Your task to perform on an android device: Open Google Chrome Image 0: 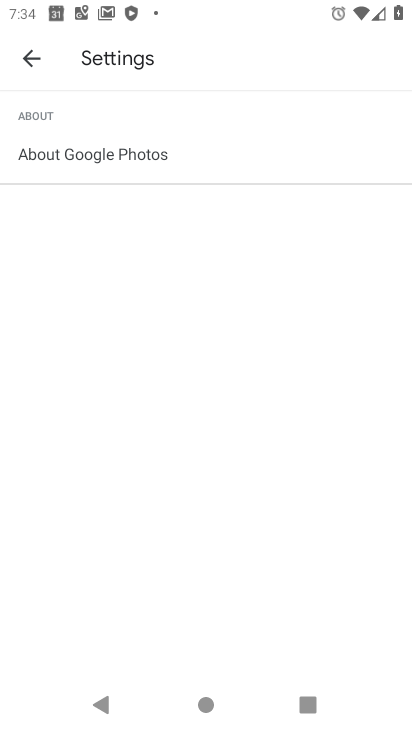
Step 0: press home button
Your task to perform on an android device: Open Google Chrome Image 1: 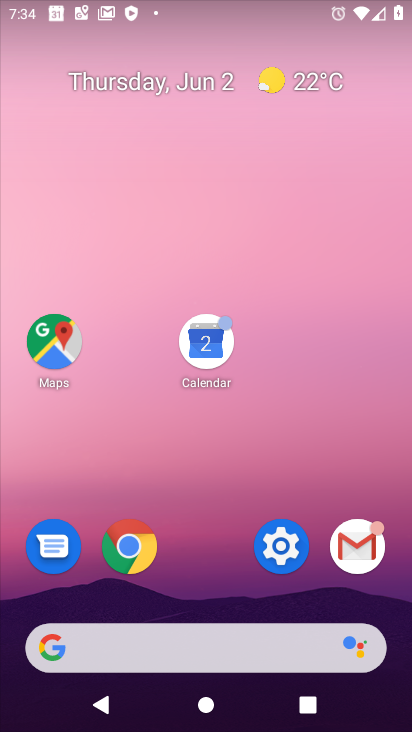
Step 1: click (133, 542)
Your task to perform on an android device: Open Google Chrome Image 2: 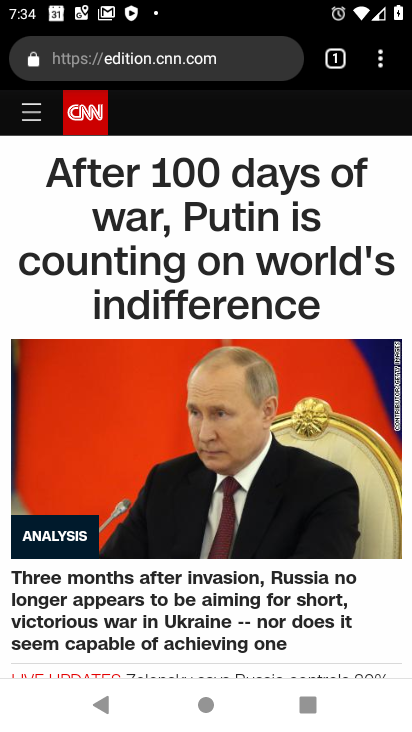
Step 2: click (336, 59)
Your task to perform on an android device: Open Google Chrome Image 3: 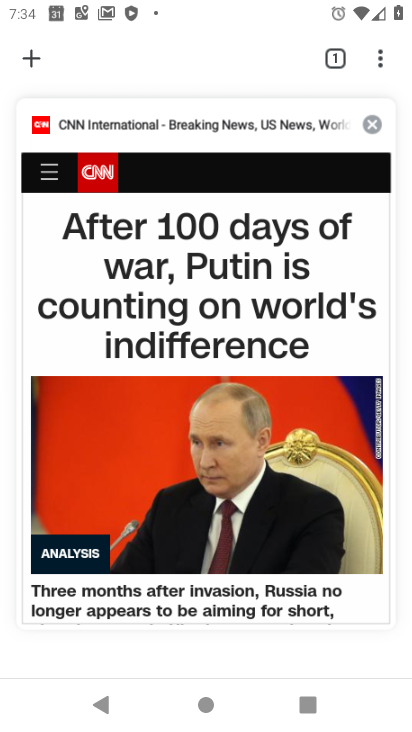
Step 3: click (36, 48)
Your task to perform on an android device: Open Google Chrome Image 4: 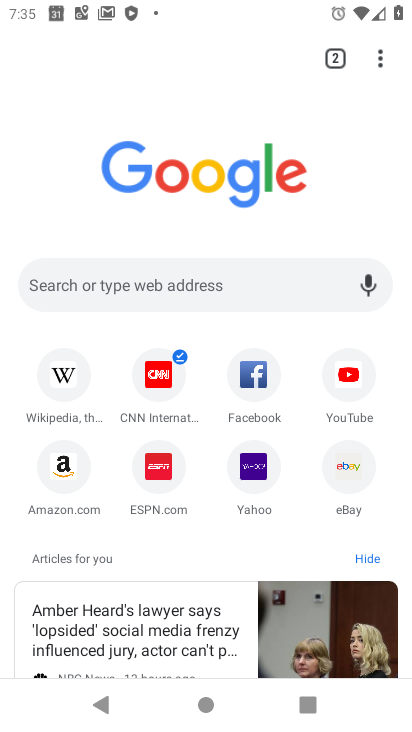
Step 4: task complete